Your task to perform on an android device: Show the shopping cart on ebay.com. Add logitech g933 to the cart on ebay.com Image 0: 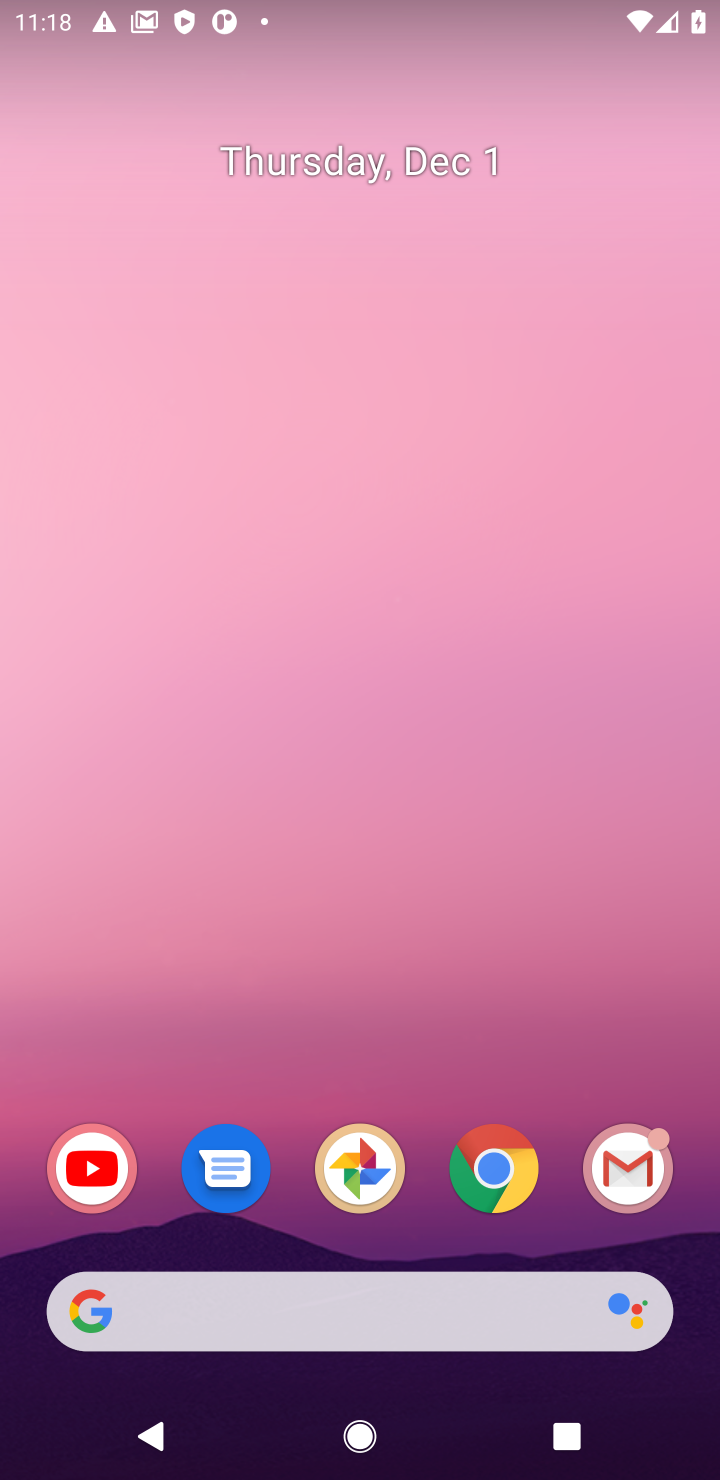
Step 0: click (494, 1172)
Your task to perform on an android device: Show the shopping cart on ebay.com. Add logitech g933 to the cart on ebay.com Image 1: 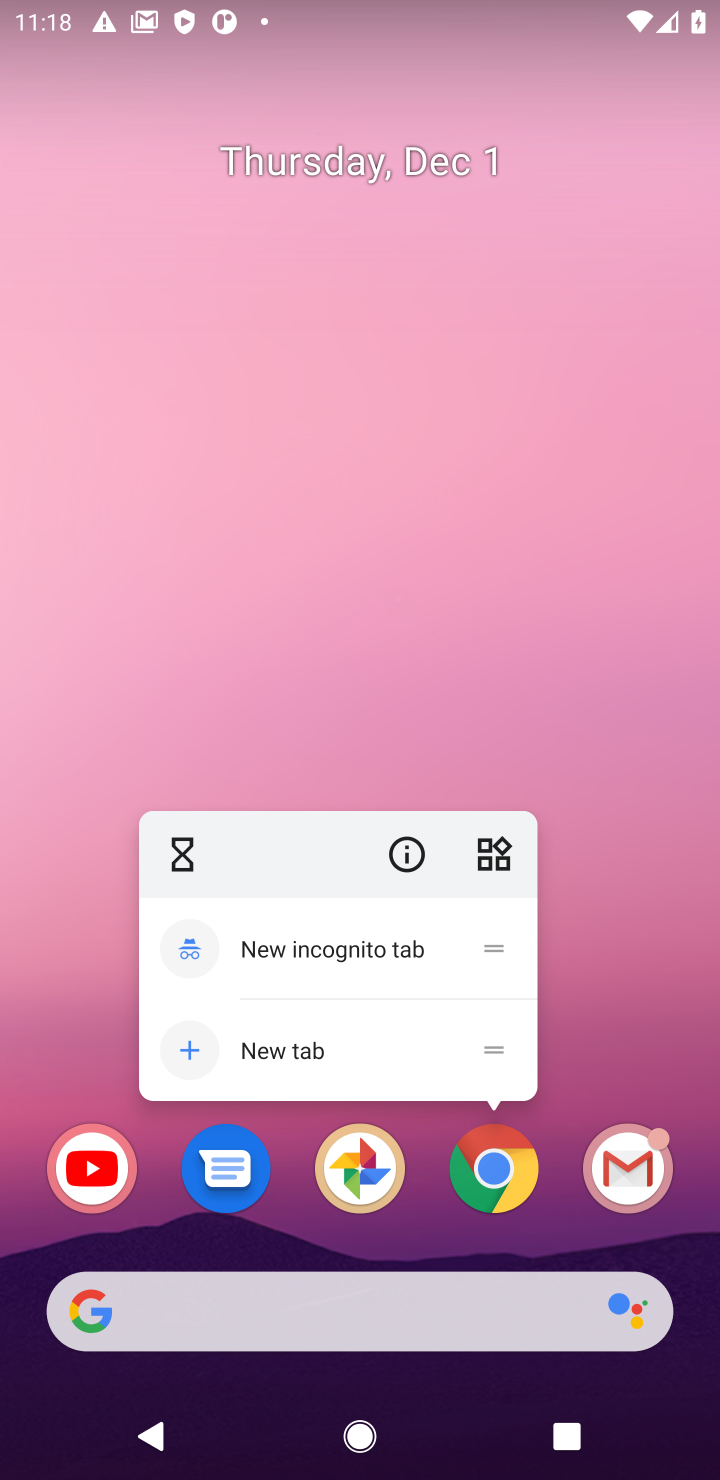
Step 1: click (495, 1172)
Your task to perform on an android device: Show the shopping cart on ebay.com. Add logitech g933 to the cart on ebay.com Image 2: 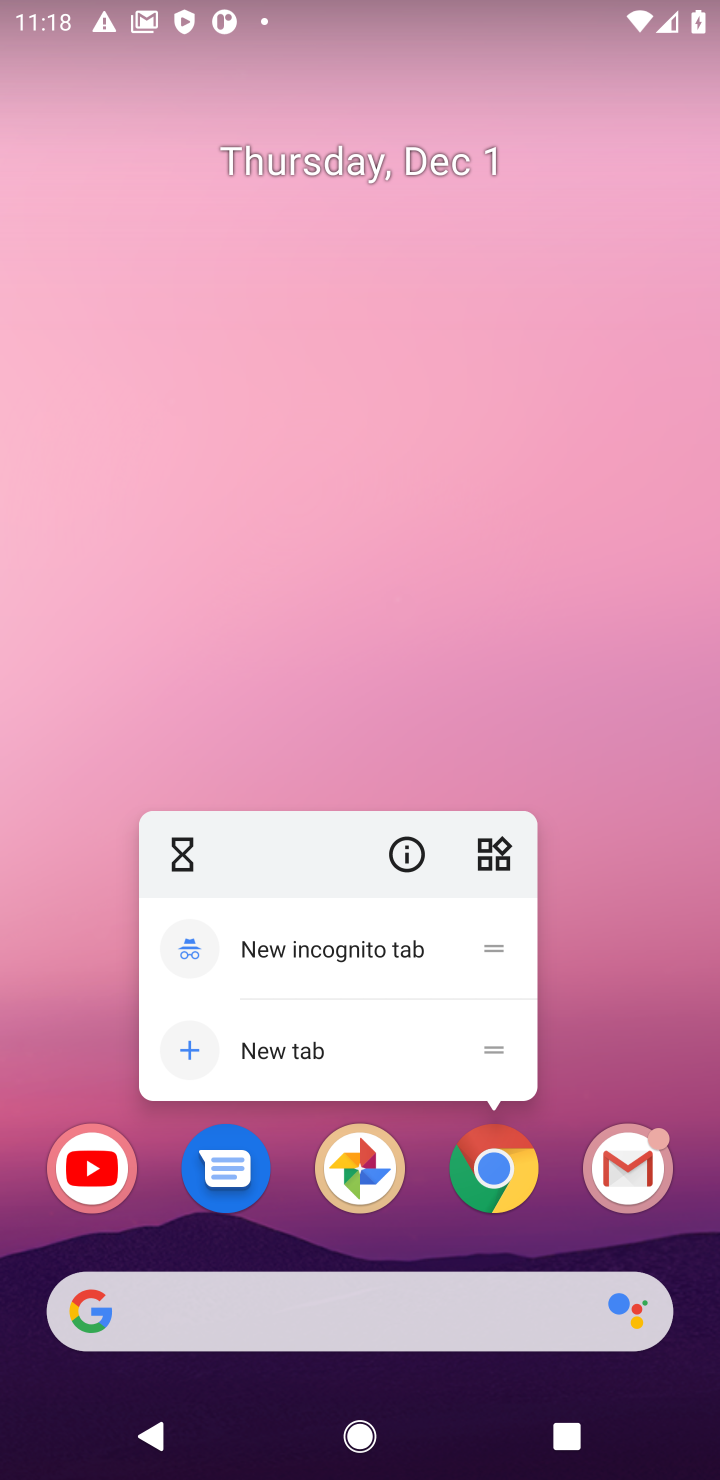
Step 2: click (586, 1034)
Your task to perform on an android device: Show the shopping cart on ebay.com. Add logitech g933 to the cart on ebay.com Image 3: 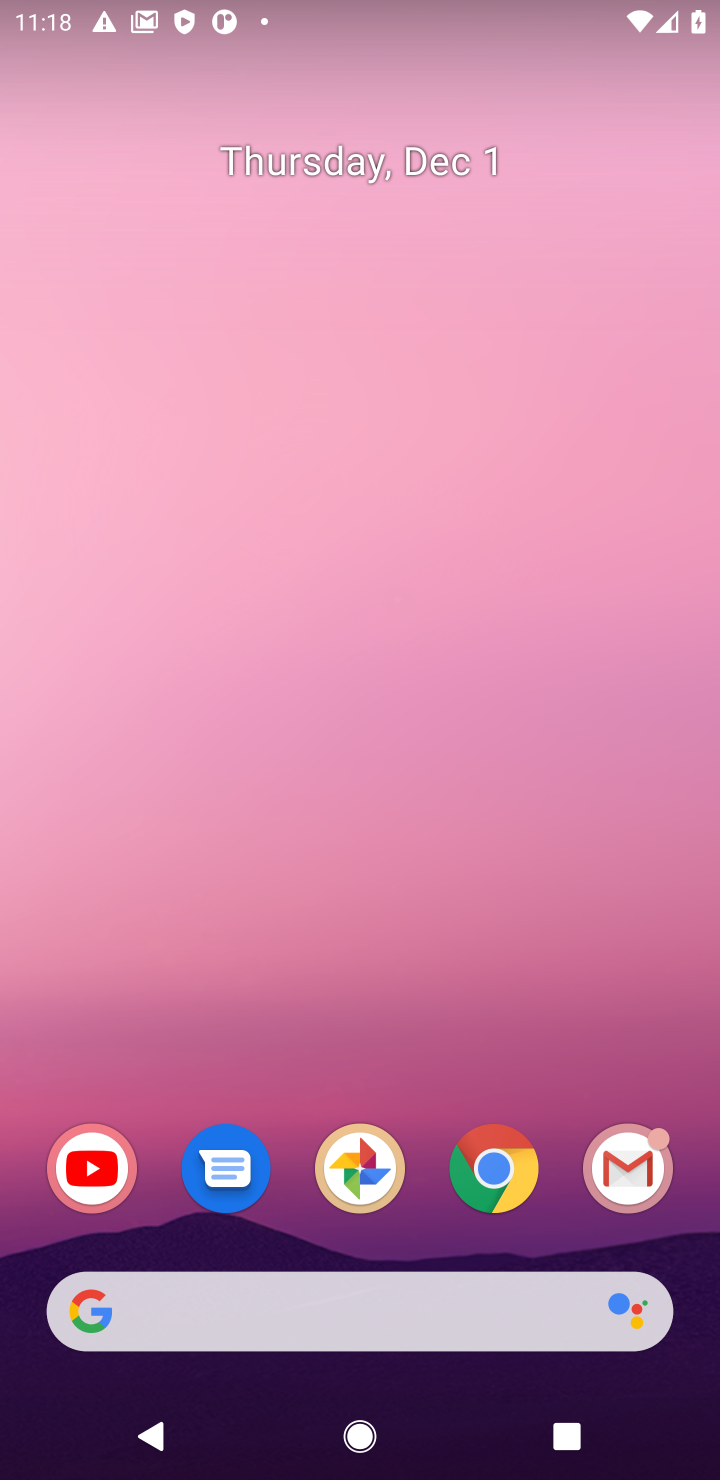
Step 3: click (500, 1179)
Your task to perform on an android device: Show the shopping cart on ebay.com. Add logitech g933 to the cart on ebay.com Image 4: 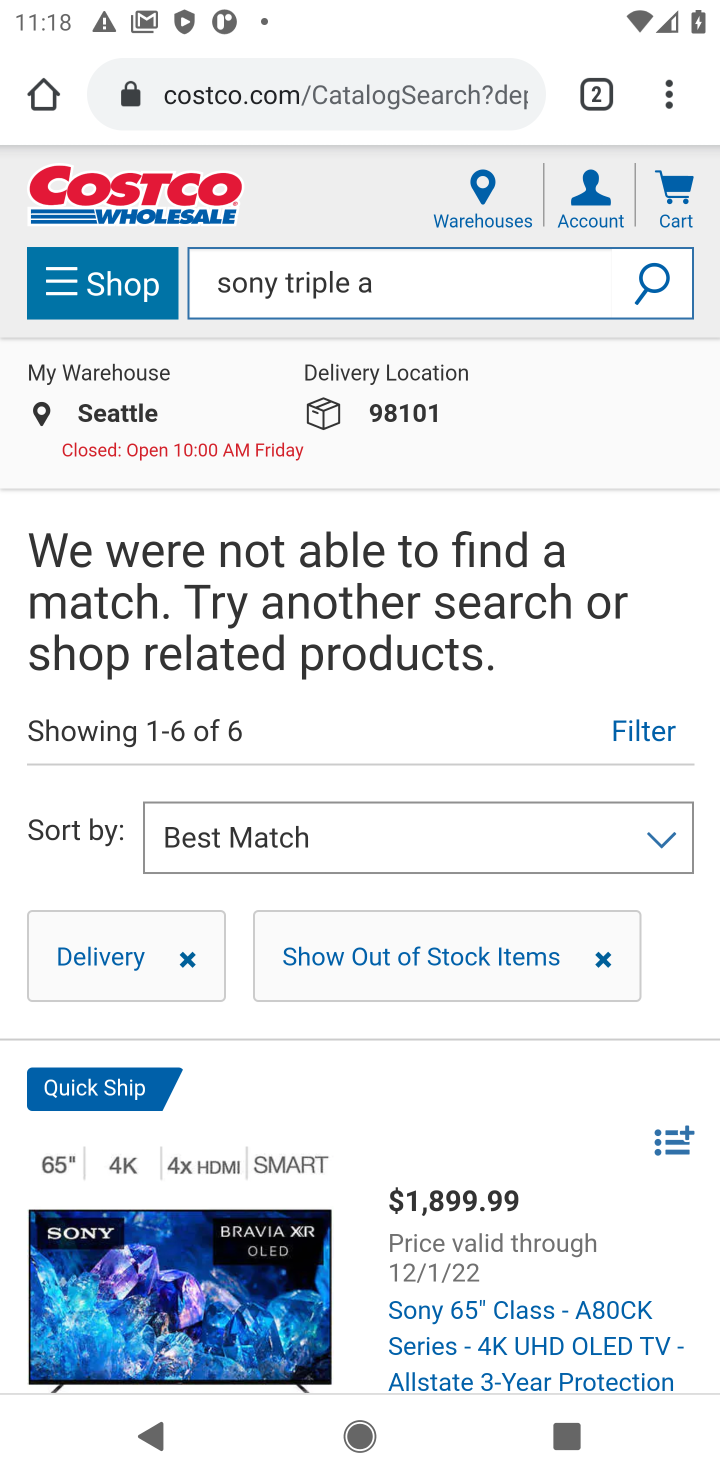
Step 4: click (313, 101)
Your task to perform on an android device: Show the shopping cart on ebay.com. Add logitech g933 to the cart on ebay.com Image 5: 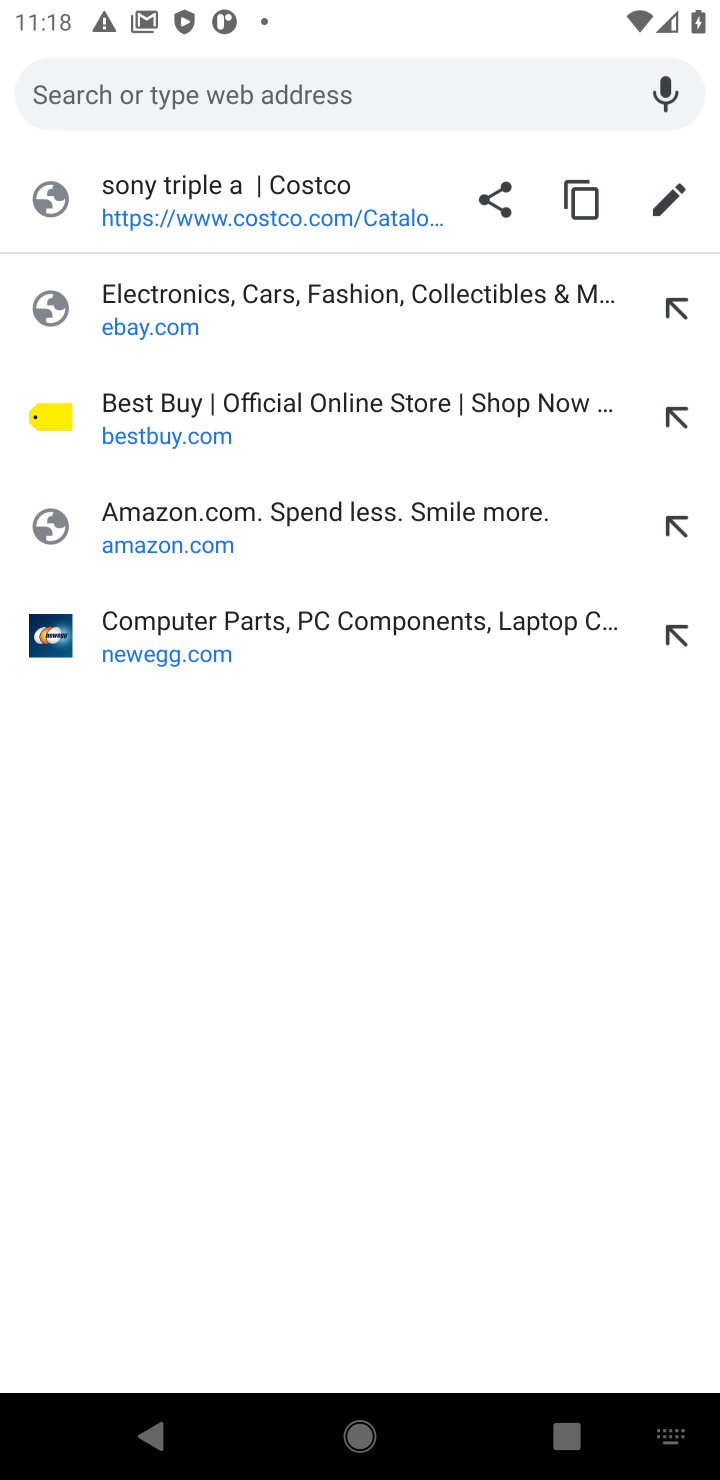
Step 5: click (151, 299)
Your task to perform on an android device: Show the shopping cart on ebay.com. Add logitech g933 to the cart on ebay.com Image 6: 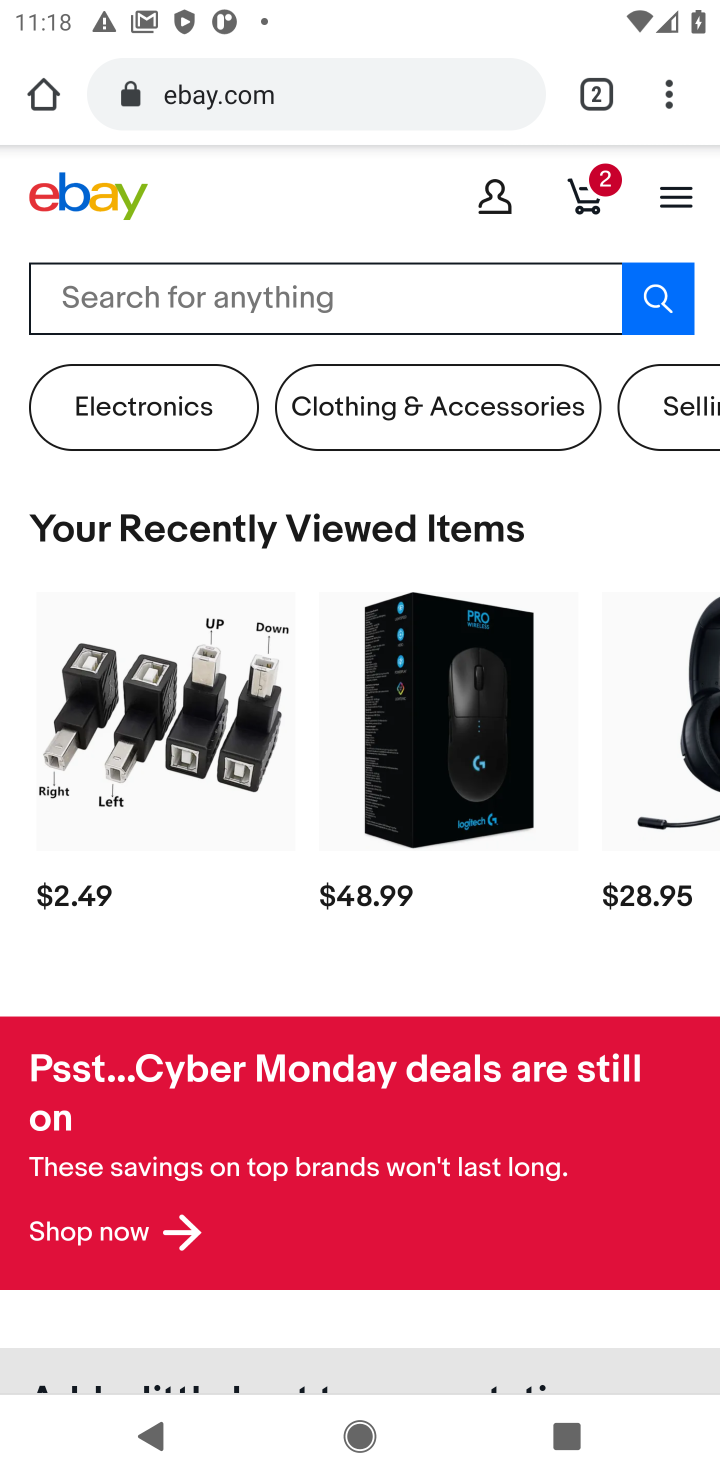
Step 6: click (591, 191)
Your task to perform on an android device: Show the shopping cart on ebay.com. Add logitech g933 to the cart on ebay.com Image 7: 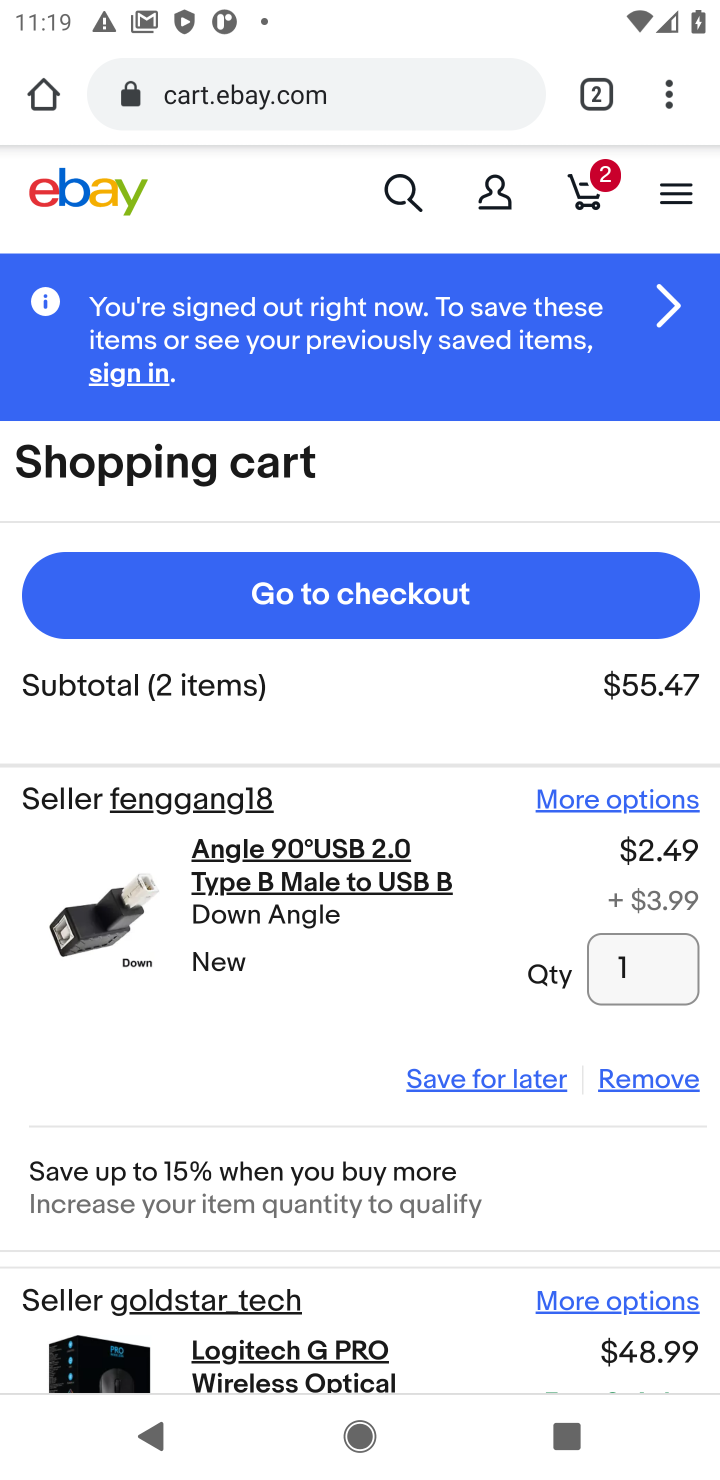
Step 7: click (403, 194)
Your task to perform on an android device: Show the shopping cart on ebay.com. Add logitech g933 to the cart on ebay.com Image 8: 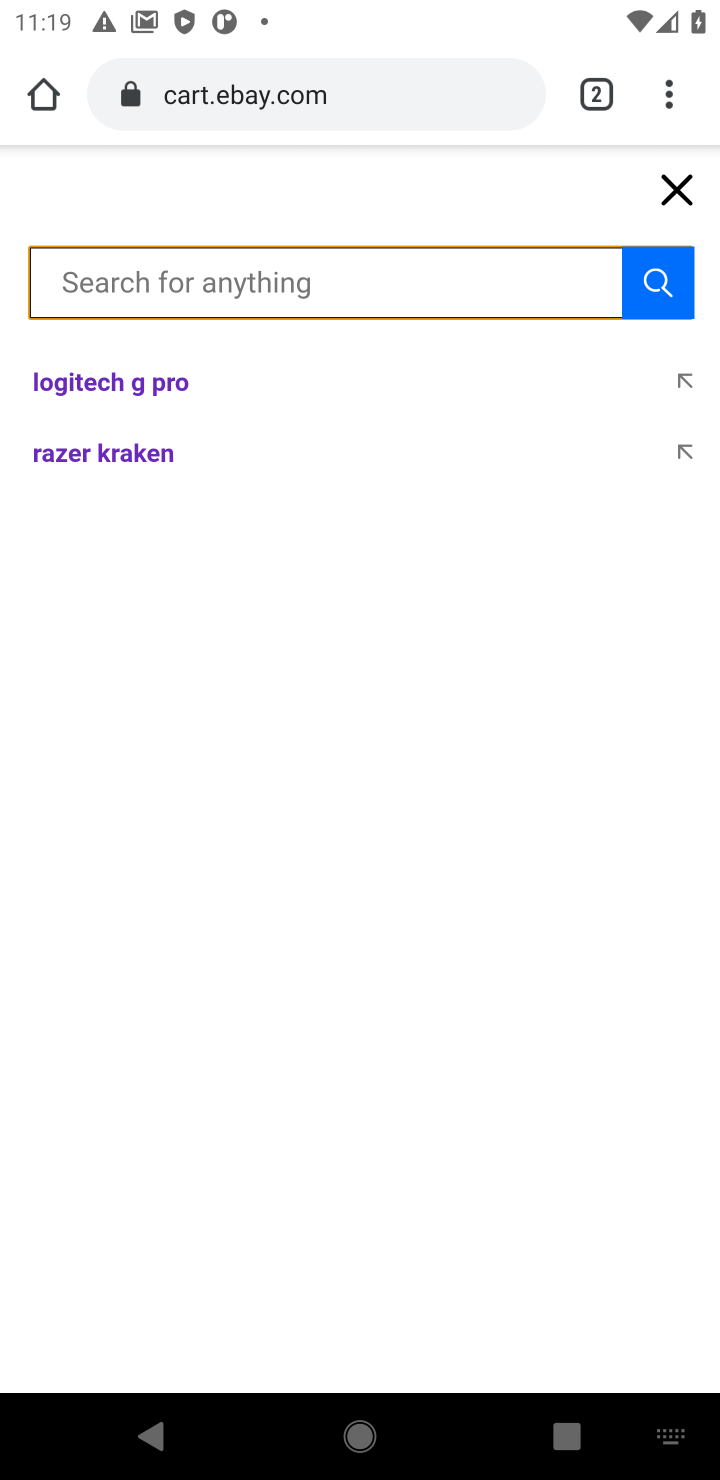
Step 8: type " logitech g933"
Your task to perform on an android device: Show the shopping cart on ebay.com. Add logitech g933 to the cart on ebay.com Image 9: 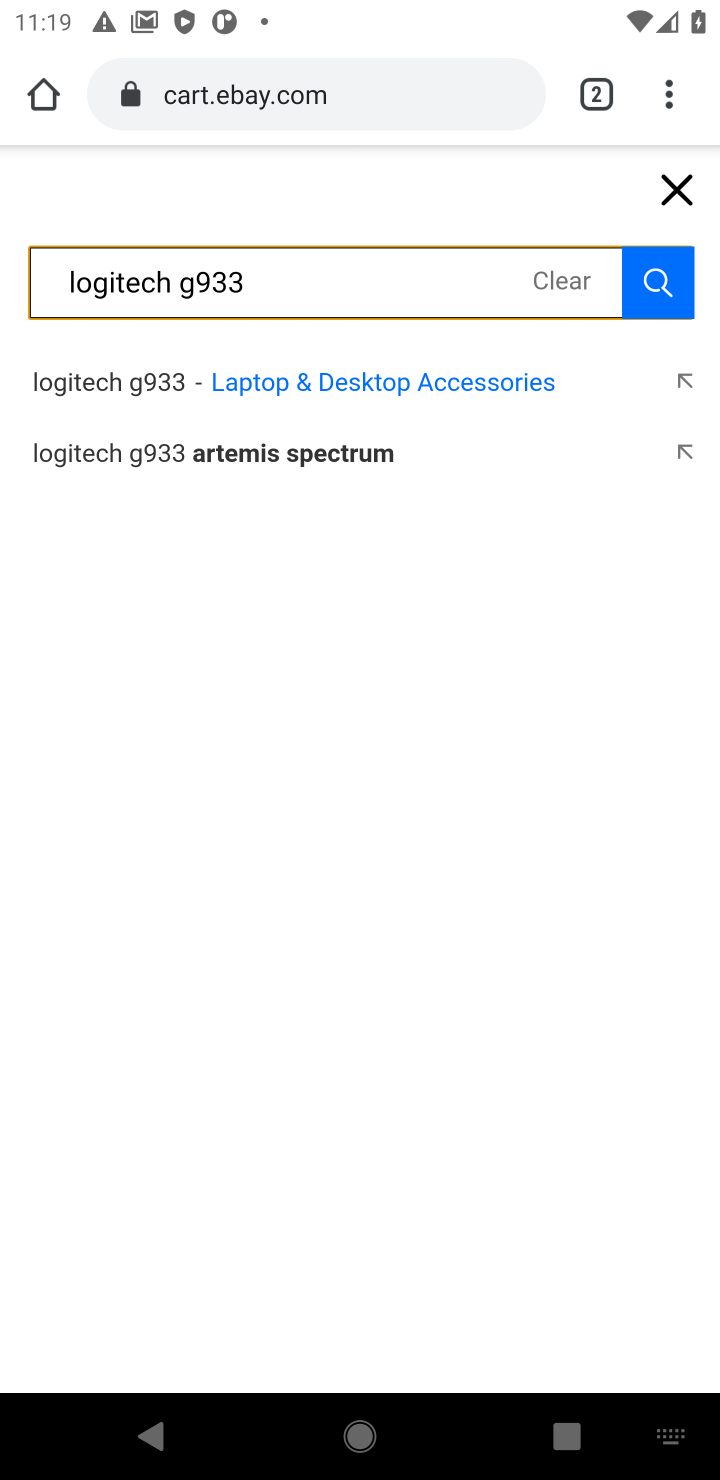
Step 9: click (122, 387)
Your task to perform on an android device: Show the shopping cart on ebay.com. Add logitech g933 to the cart on ebay.com Image 10: 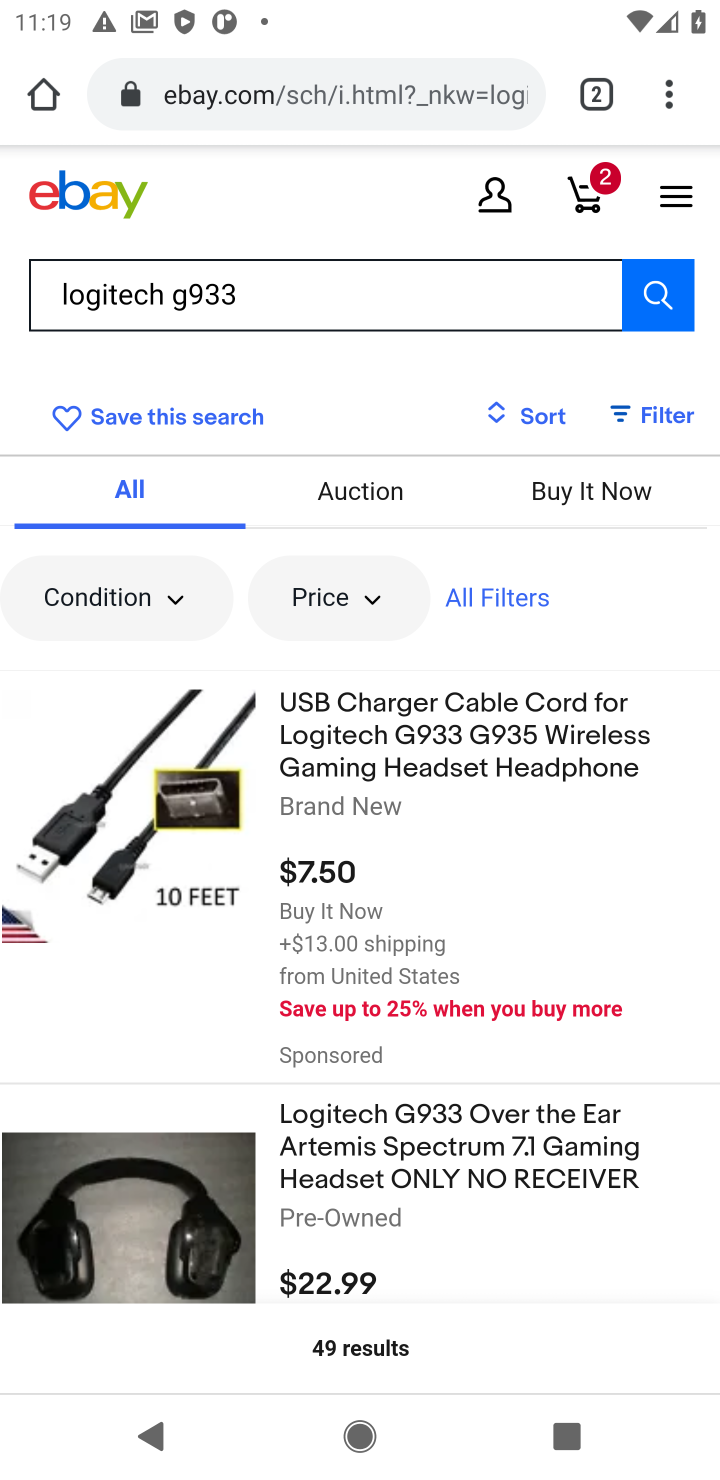
Step 10: click (378, 752)
Your task to perform on an android device: Show the shopping cart on ebay.com. Add logitech g933 to the cart on ebay.com Image 11: 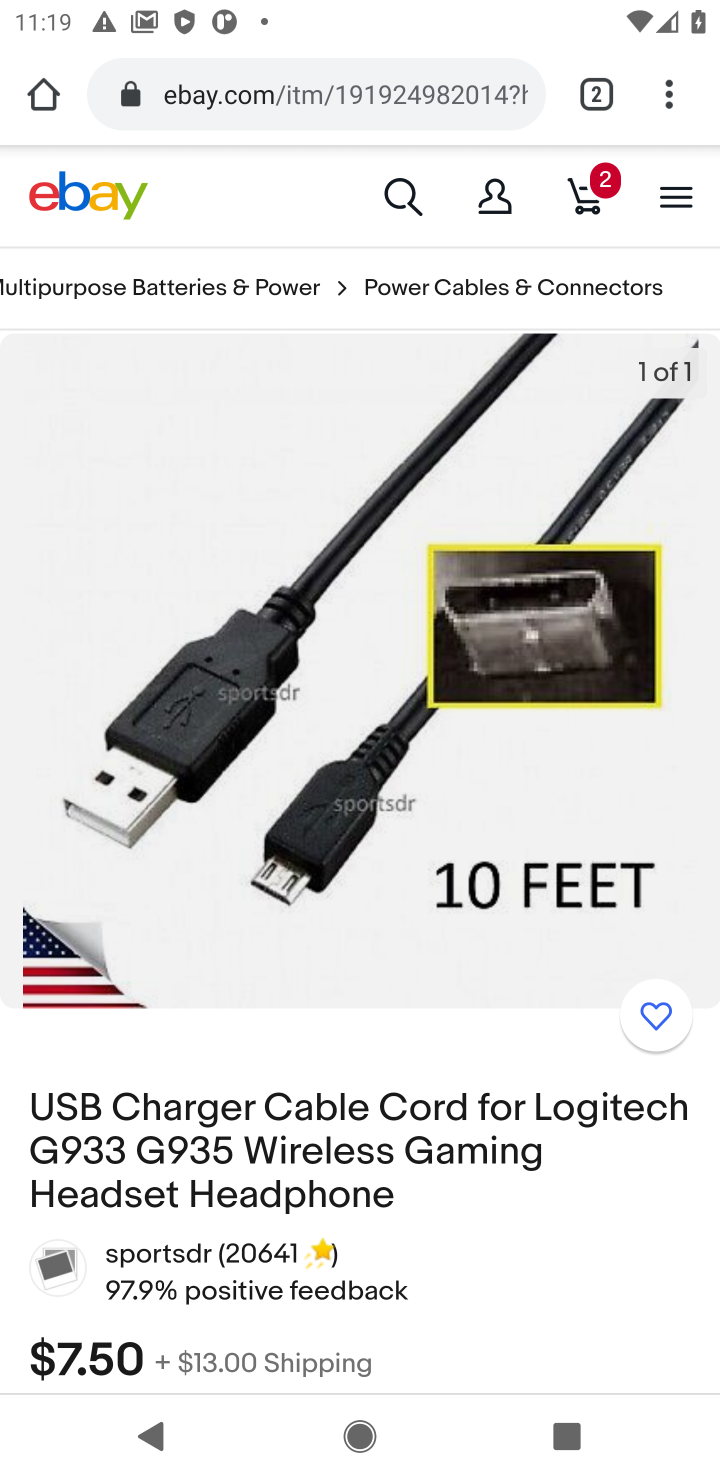
Step 11: drag from (434, 1120) to (400, 414)
Your task to perform on an android device: Show the shopping cart on ebay.com. Add logitech g933 to the cart on ebay.com Image 12: 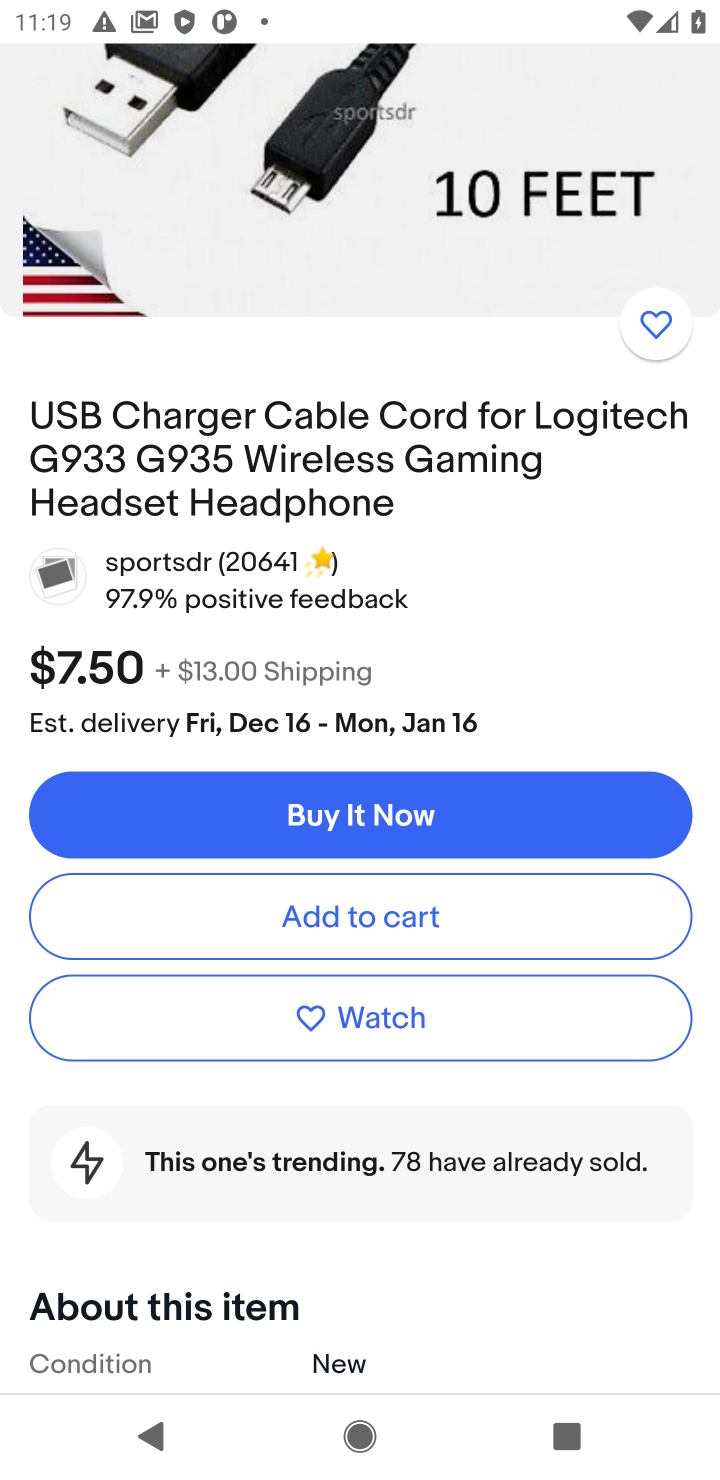
Step 12: click (342, 928)
Your task to perform on an android device: Show the shopping cart on ebay.com. Add logitech g933 to the cart on ebay.com Image 13: 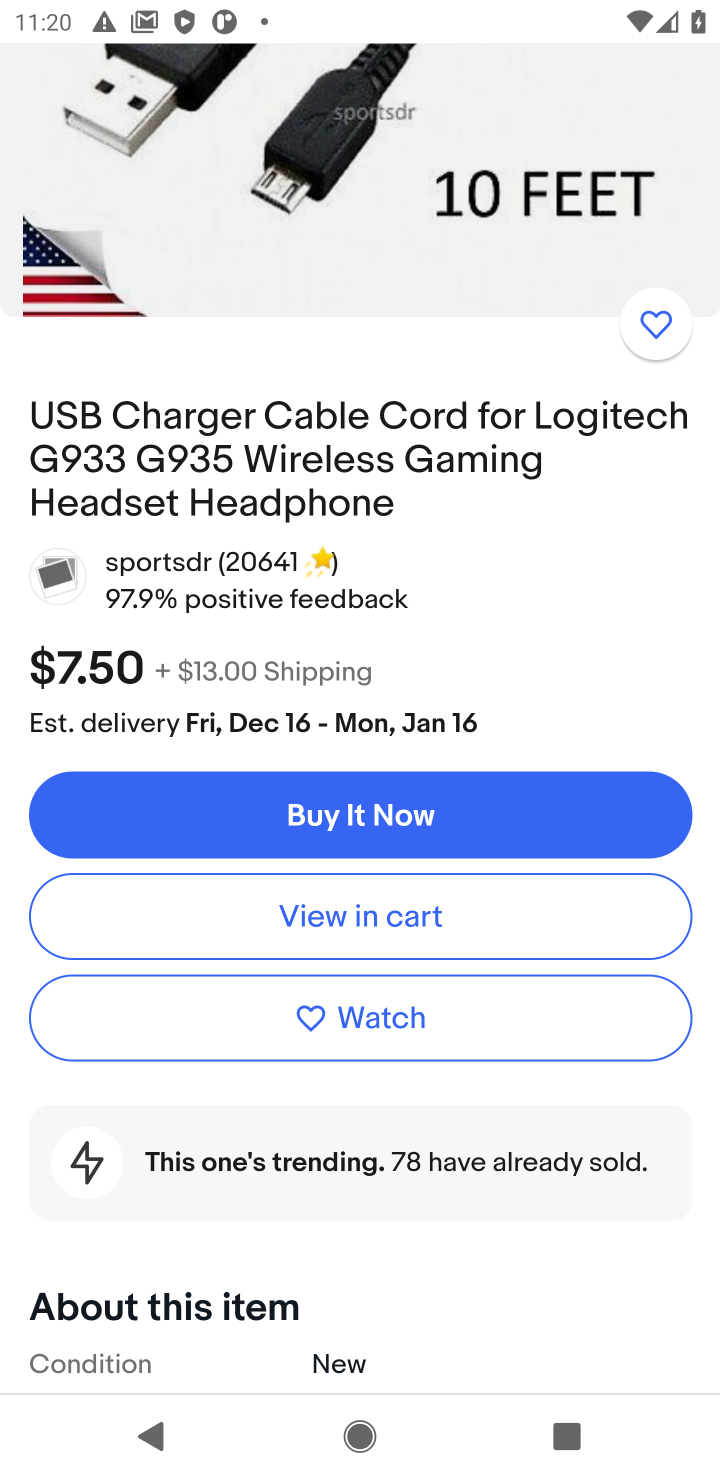
Step 13: task complete